Your task to perform on an android device: Open wifi settings Image 0: 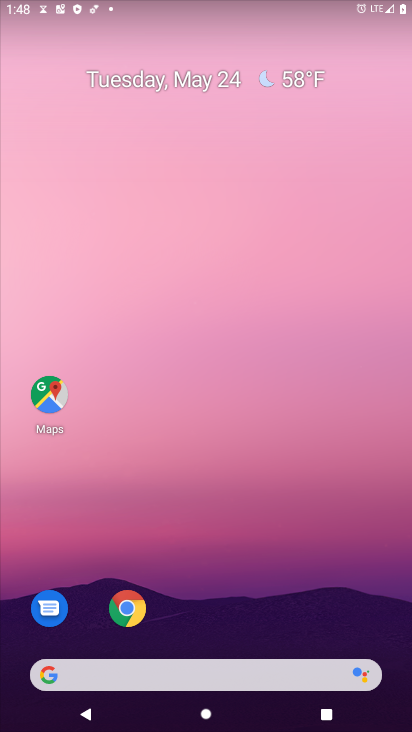
Step 0: drag from (228, 682) to (137, 114)
Your task to perform on an android device: Open wifi settings Image 1: 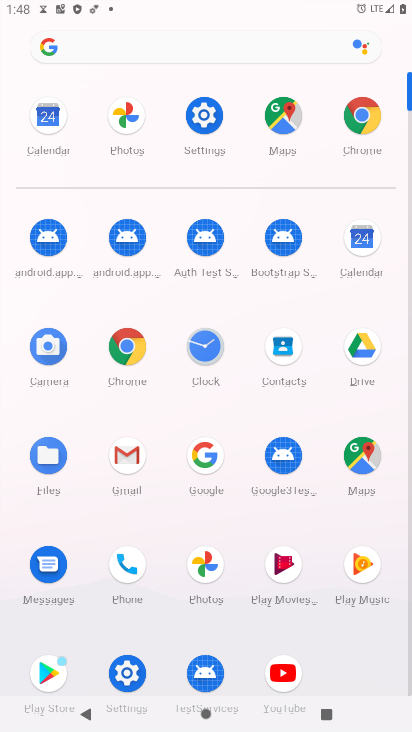
Step 1: click (199, 127)
Your task to perform on an android device: Open wifi settings Image 2: 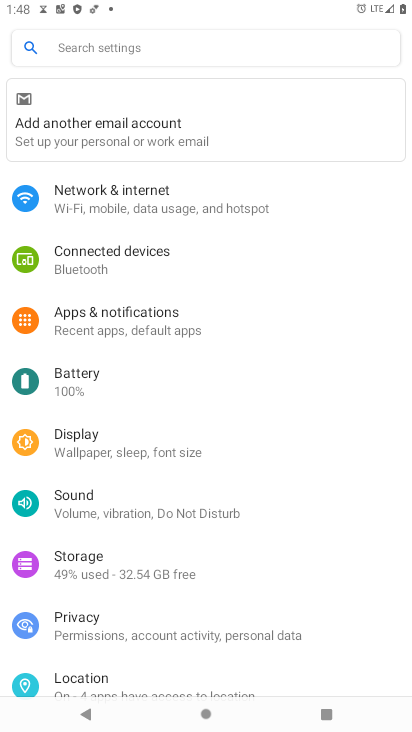
Step 2: click (146, 186)
Your task to perform on an android device: Open wifi settings Image 3: 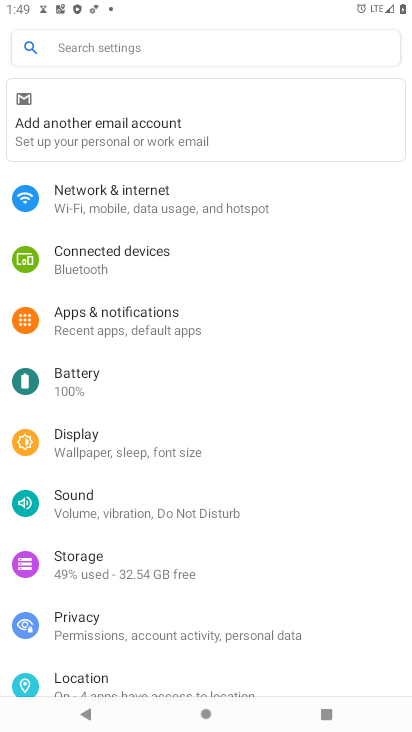
Step 3: click (160, 205)
Your task to perform on an android device: Open wifi settings Image 4: 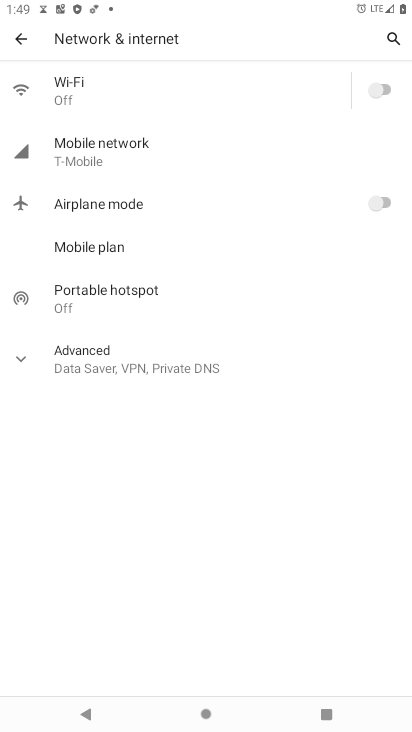
Step 4: click (156, 106)
Your task to perform on an android device: Open wifi settings Image 5: 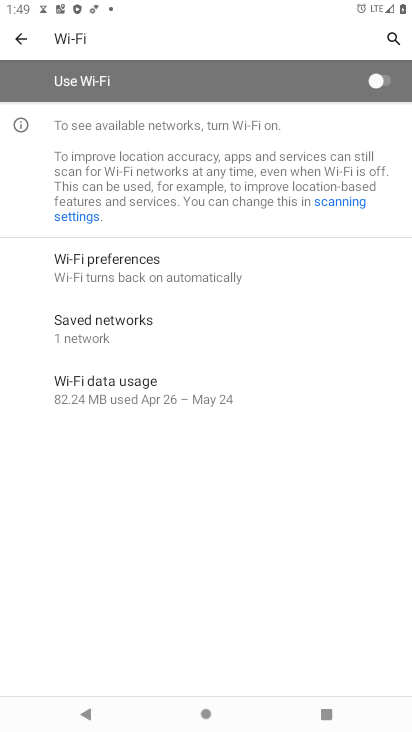
Step 5: task complete